Your task to perform on an android device: Open wifi settings Image 0: 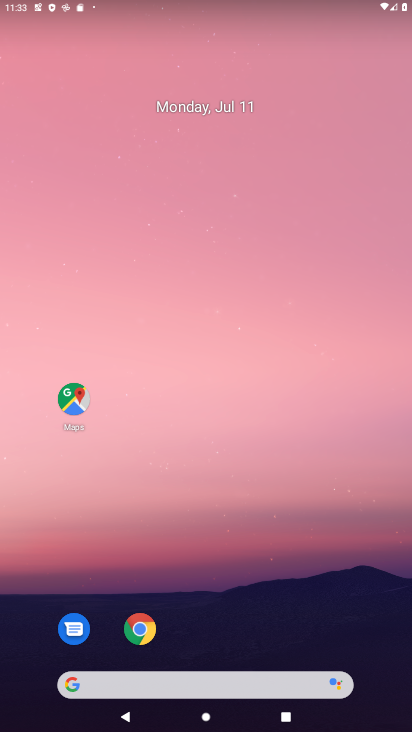
Step 0: drag from (270, 613) to (204, 121)
Your task to perform on an android device: Open wifi settings Image 1: 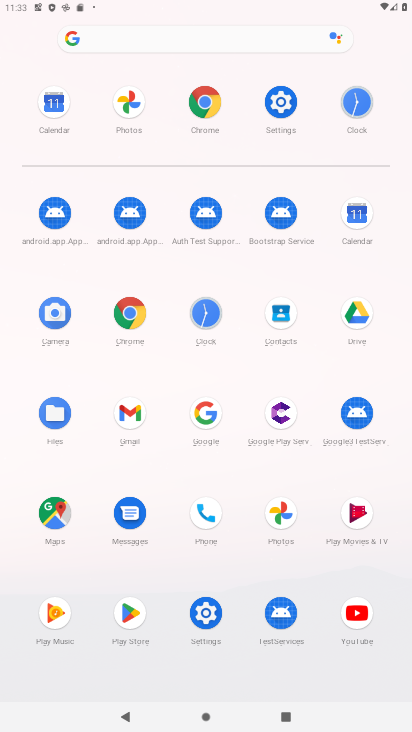
Step 1: click (281, 96)
Your task to perform on an android device: Open wifi settings Image 2: 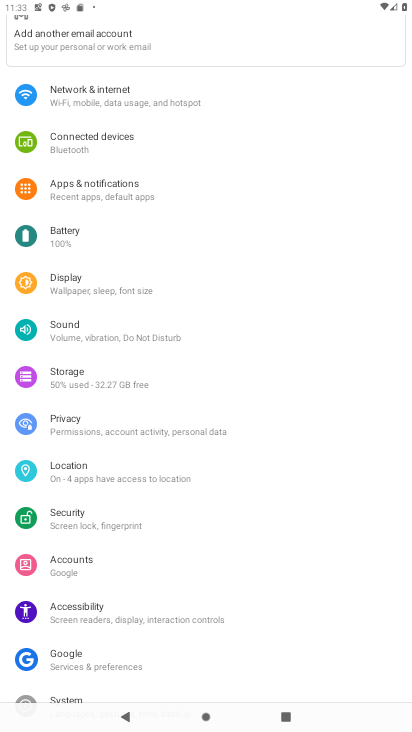
Step 2: click (114, 106)
Your task to perform on an android device: Open wifi settings Image 3: 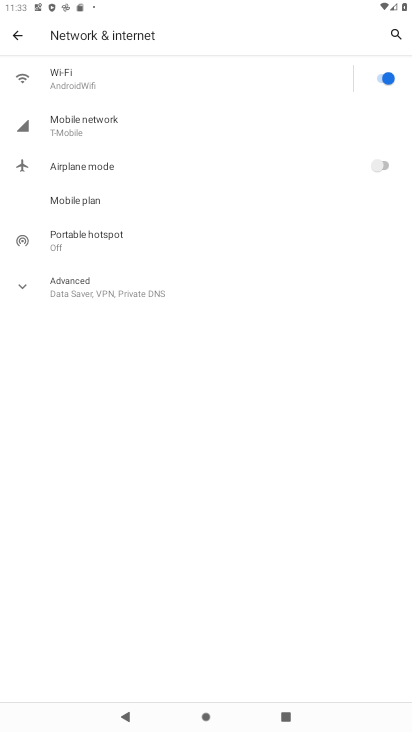
Step 3: task complete